Your task to perform on an android device: Open the Play Movies app and select the watchlist tab. Image 0: 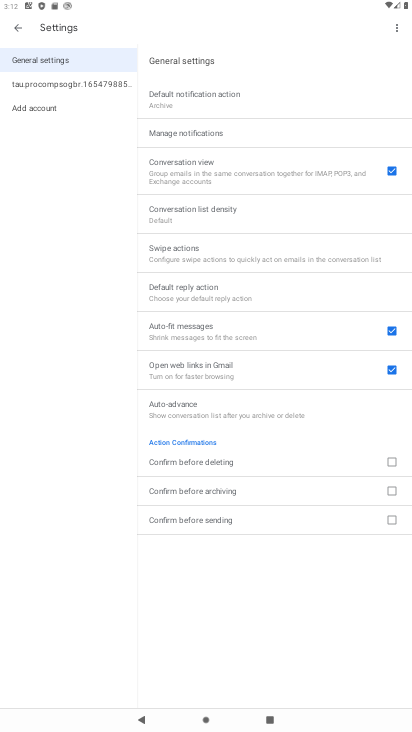
Step 0: press home button
Your task to perform on an android device: Open the Play Movies app and select the watchlist tab. Image 1: 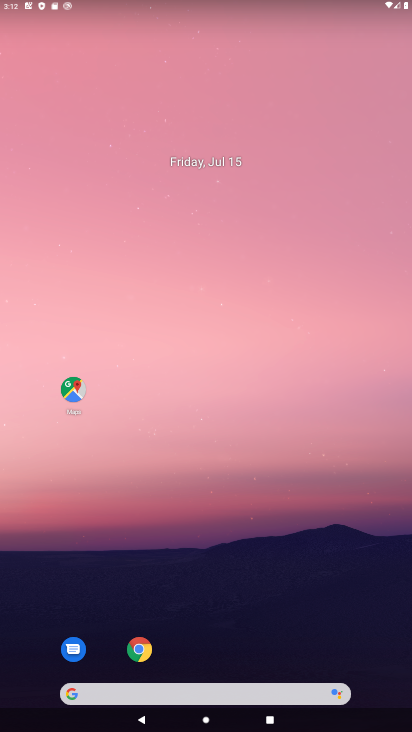
Step 1: drag from (288, 448) to (292, 84)
Your task to perform on an android device: Open the Play Movies app and select the watchlist tab. Image 2: 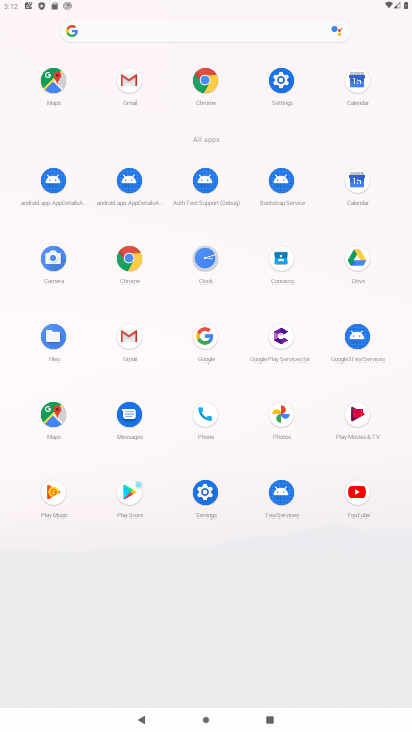
Step 2: click (358, 415)
Your task to perform on an android device: Open the Play Movies app and select the watchlist tab. Image 3: 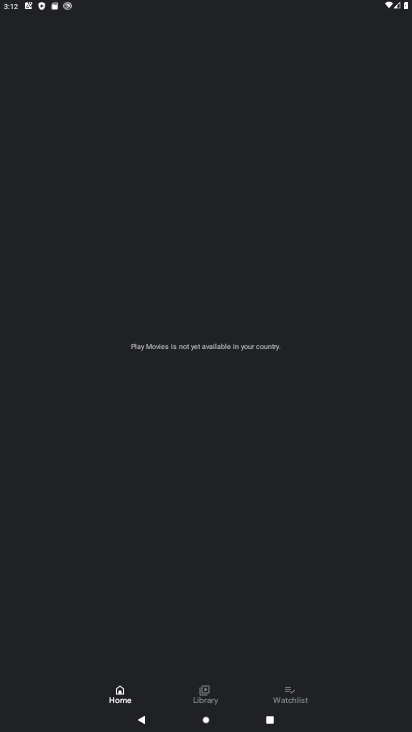
Step 3: click (278, 684)
Your task to perform on an android device: Open the Play Movies app and select the watchlist tab. Image 4: 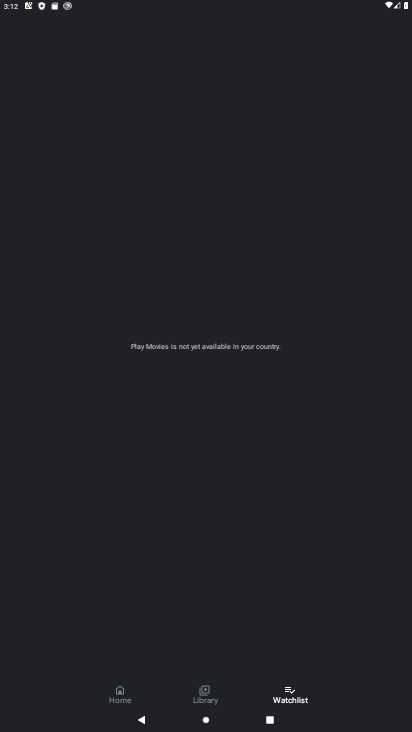
Step 4: task complete